Your task to perform on an android device: Open location settings Image 0: 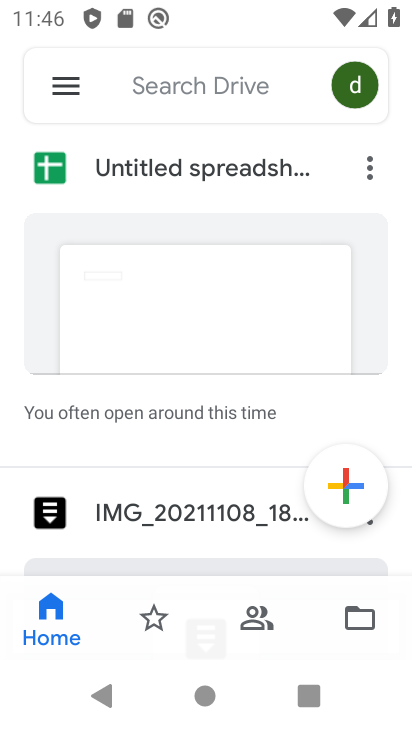
Step 0: press home button
Your task to perform on an android device: Open location settings Image 1: 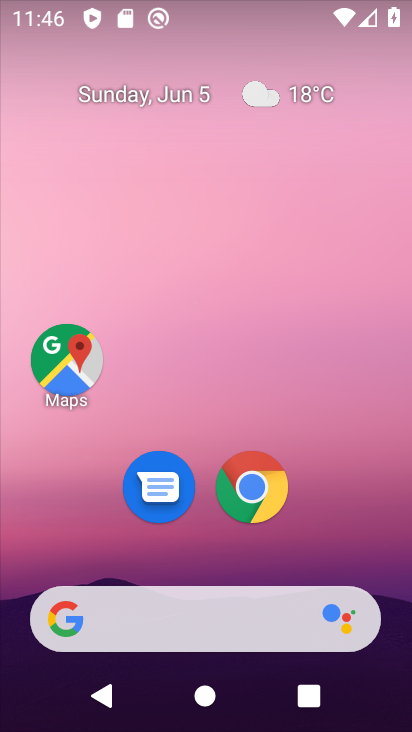
Step 1: drag from (312, 552) to (302, 132)
Your task to perform on an android device: Open location settings Image 2: 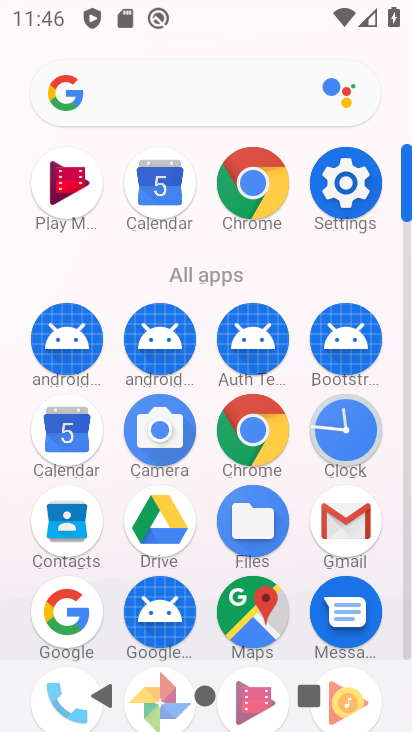
Step 2: click (330, 197)
Your task to perform on an android device: Open location settings Image 3: 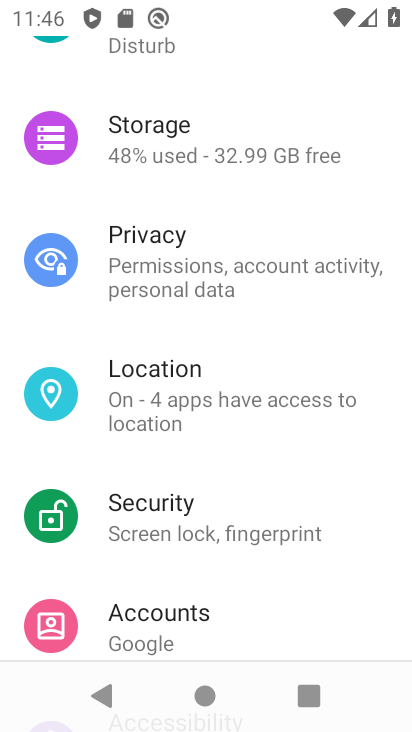
Step 3: click (230, 428)
Your task to perform on an android device: Open location settings Image 4: 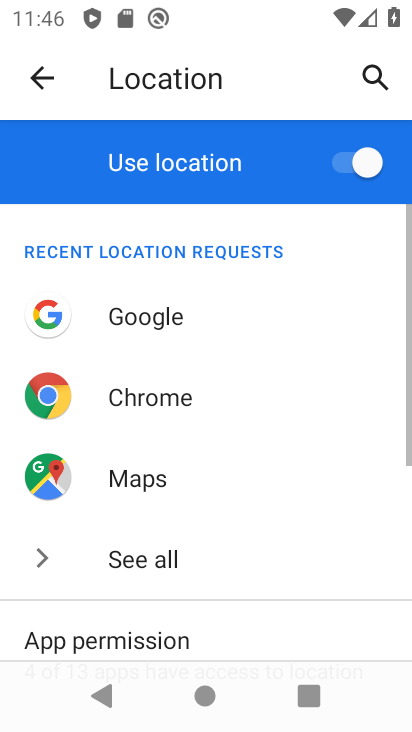
Step 4: drag from (252, 571) to (269, 347)
Your task to perform on an android device: Open location settings Image 5: 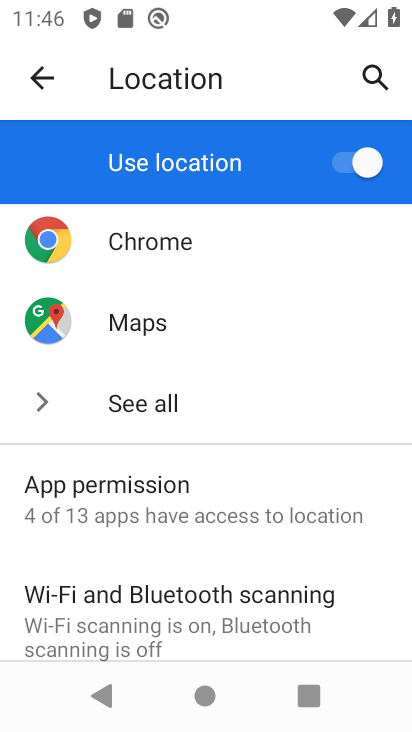
Step 5: drag from (343, 640) to (336, 400)
Your task to perform on an android device: Open location settings Image 6: 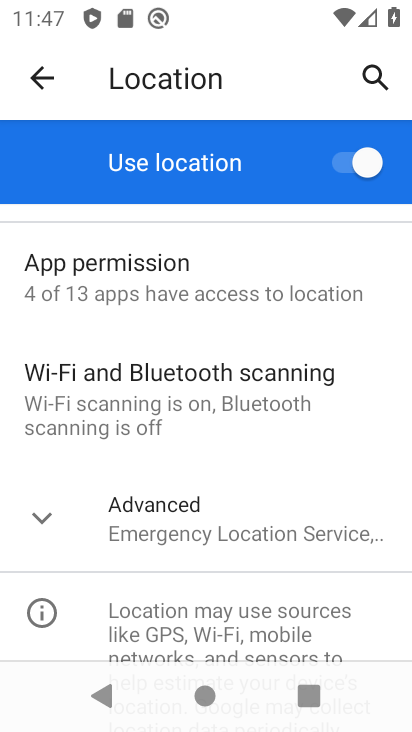
Step 6: drag from (252, 572) to (252, 317)
Your task to perform on an android device: Open location settings Image 7: 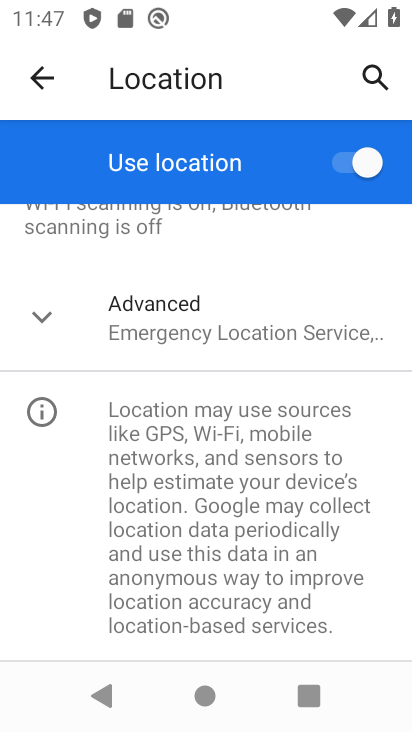
Step 7: click (237, 340)
Your task to perform on an android device: Open location settings Image 8: 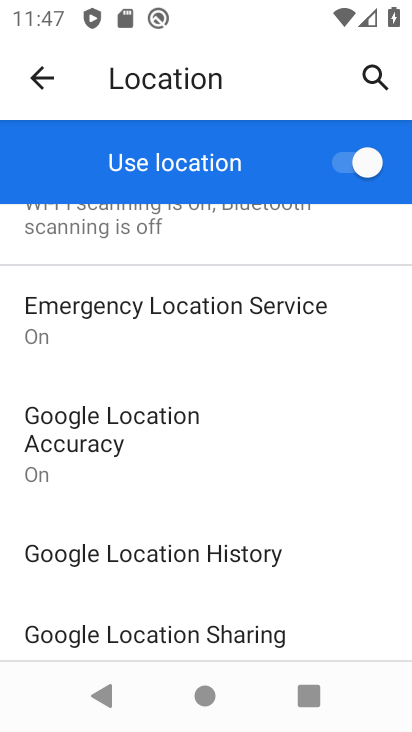
Step 8: task complete